Your task to perform on an android device: Go to wifi settings Image 0: 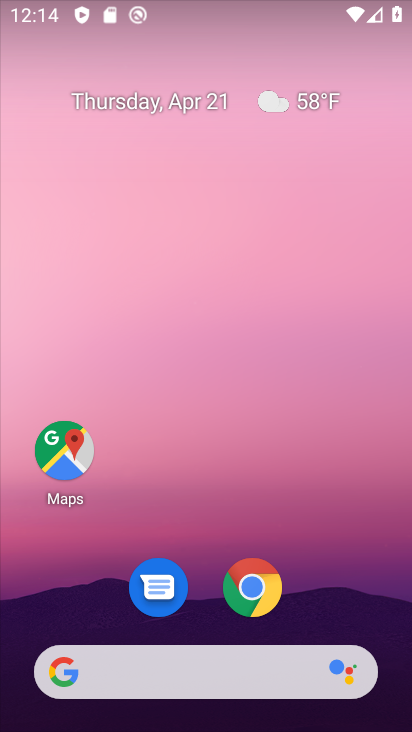
Step 0: click (162, 375)
Your task to perform on an android device: Go to wifi settings Image 1: 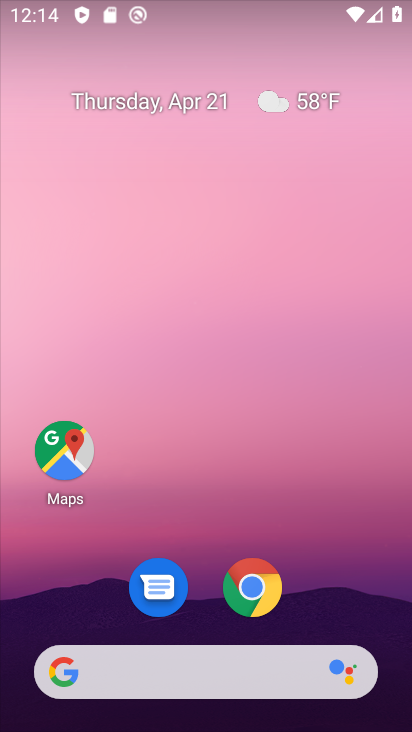
Step 1: drag from (298, 619) to (321, 14)
Your task to perform on an android device: Go to wifi settings Image 2: 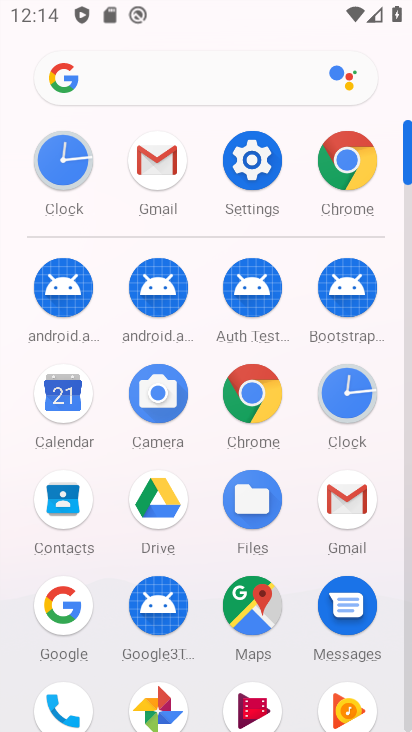
Step 2: click (246, 175)
Your task to perform on an android device: Go to wifi settings Image 3: 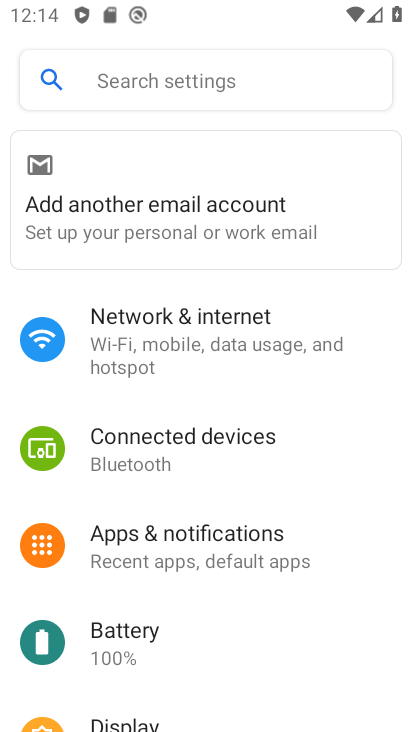
Step 3: click (164, 319)
Your task to perform on an android device: Go to wifi settings Image 4: 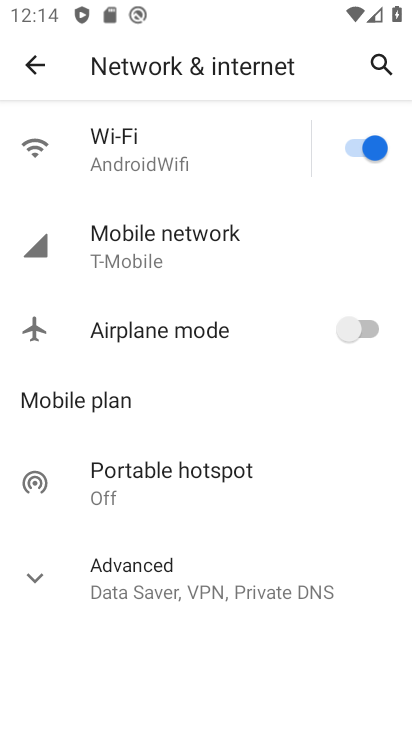
Step 4: click (131, 147)
Your task to perform on an android device: Go to wifi settings Image 5: 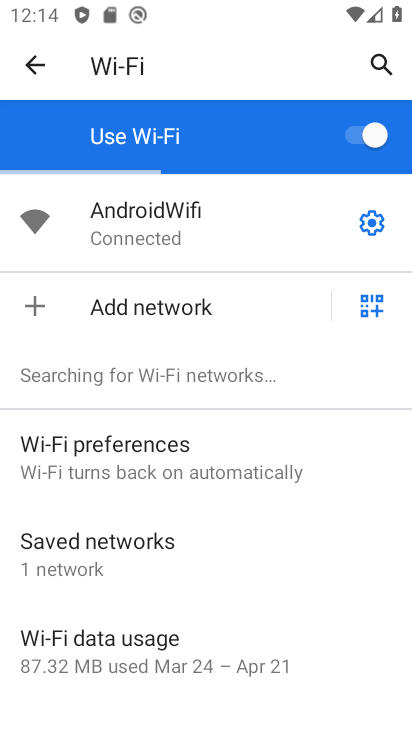
Step 5: task complete